Your task to perform on an android device: clear all cookies in the chrome app Image 0: 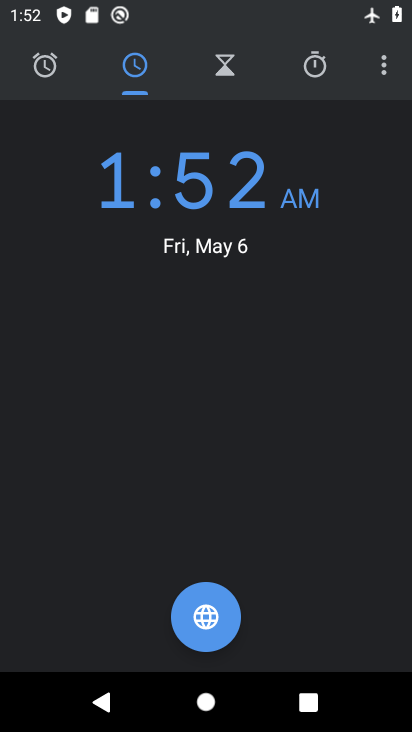
Step 0: press home button
Your task to perform on an android device: clear all cookies in the chrome app Image 1: 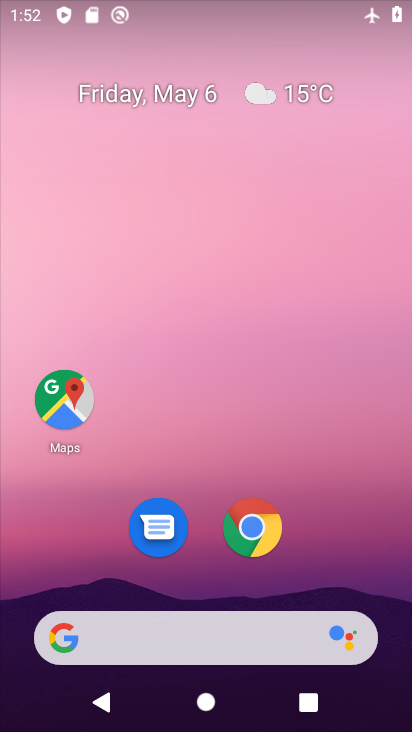
Step 1: click (266, 533)
Your task to perform on an android device: clear all cookies in the chrome app Image 2: 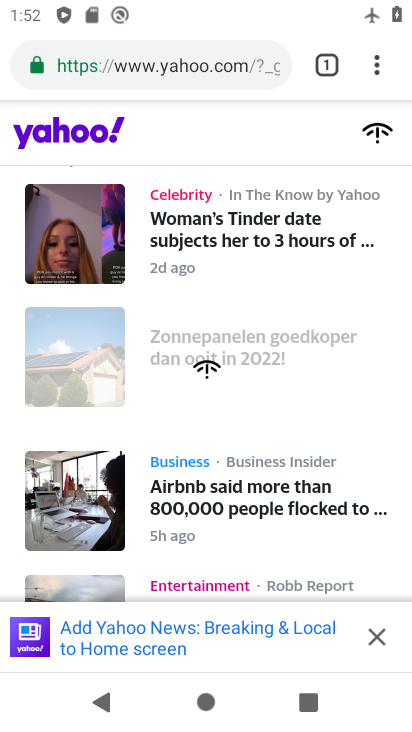
Step 2: drag from (378, 63) to (149, 363)
Your task to perform on an android device: clear all cookies in the chrome app Image 3: 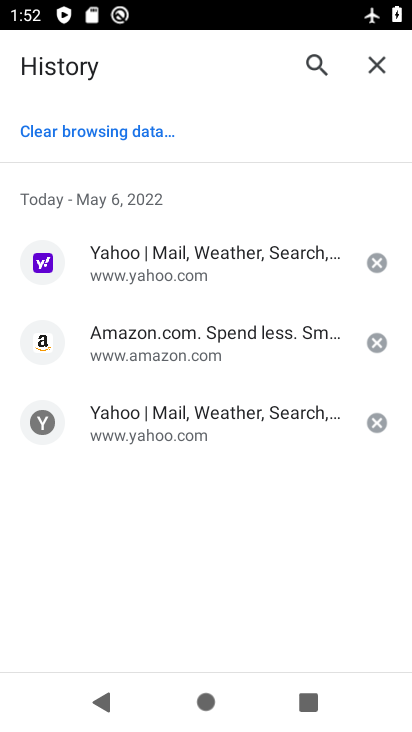
Step 3: click (87, 117)
Your task to perform on an android device: clear all cookies in the chrome app Image 4: 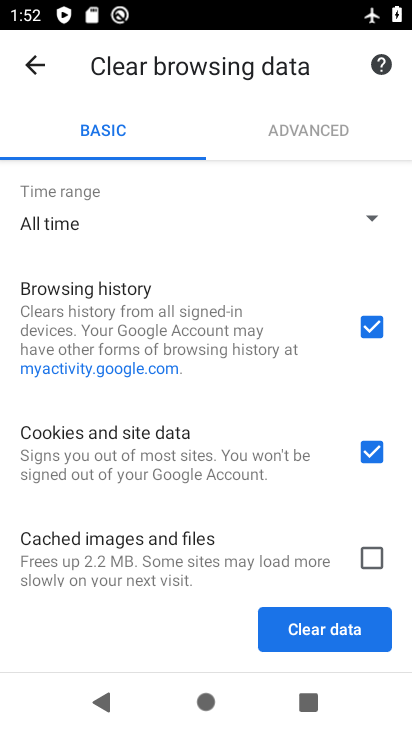
Step 4: drag from (166, 574) to (174, 329)
Your task to perform on an android device: clear all cookies in the chrome app Image 5: 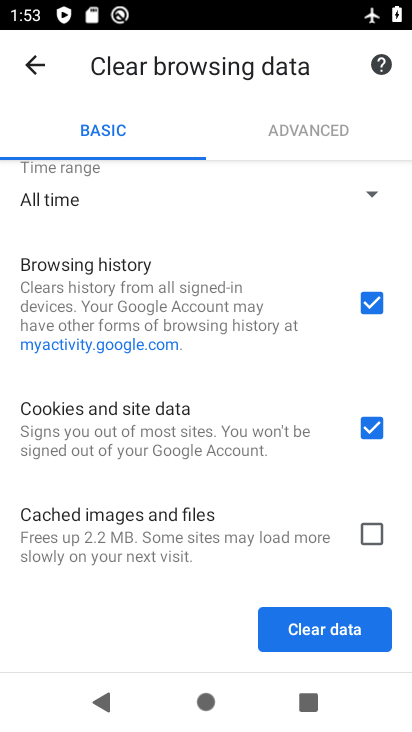
Step 5: click (367, 305)
Your task to perform on an android device: clear all cookies in the chrome app Image 6: 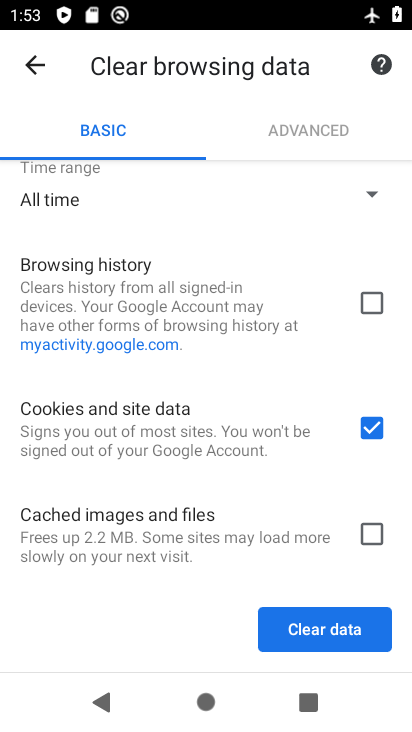
Step 6: click (320, 633)
Your task to perform on an android device: clear all cookies in the chrome app Image 7: 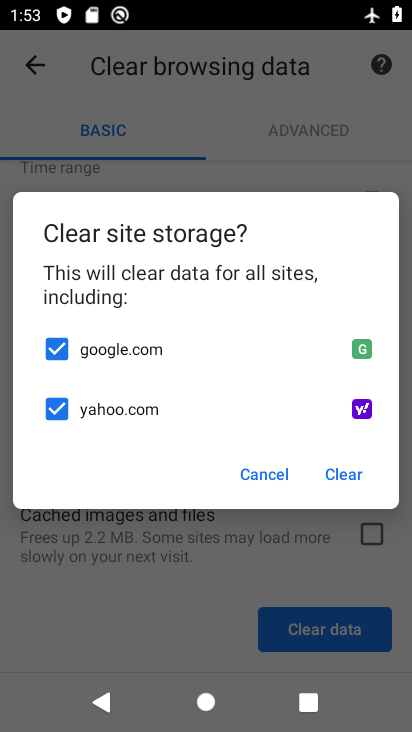
Step 7: click (350, 467)
Your task to perform on an android device: clear all cookies in the chrome app Image 8: 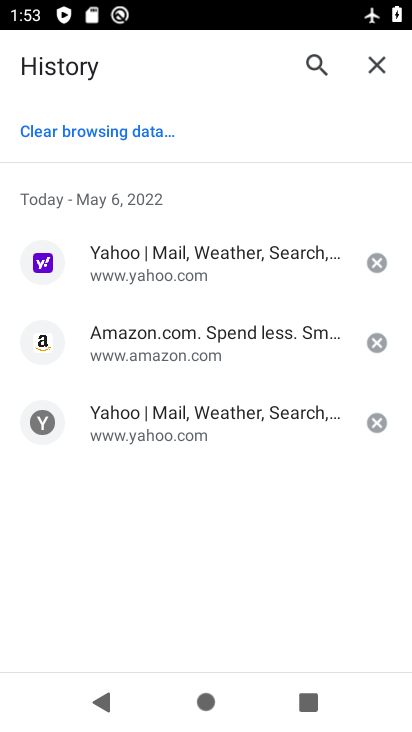
Step 8: task complete